Your task to perform on an android device: Open Yahoo.com Image 0: 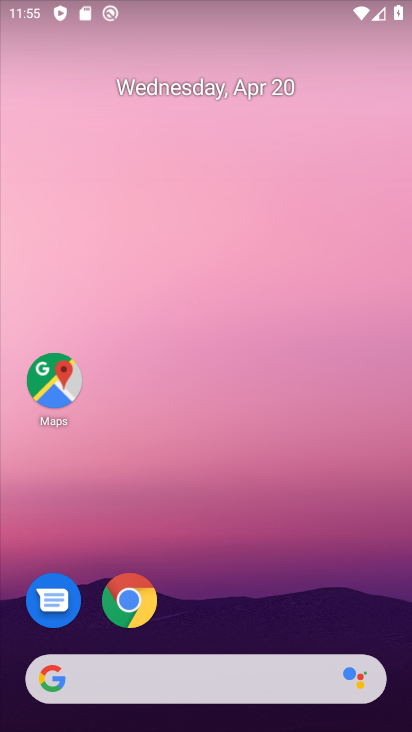
Step 0: click (199, 687)
Your task to perform on an android device: Open Yahoo.com Image 1: 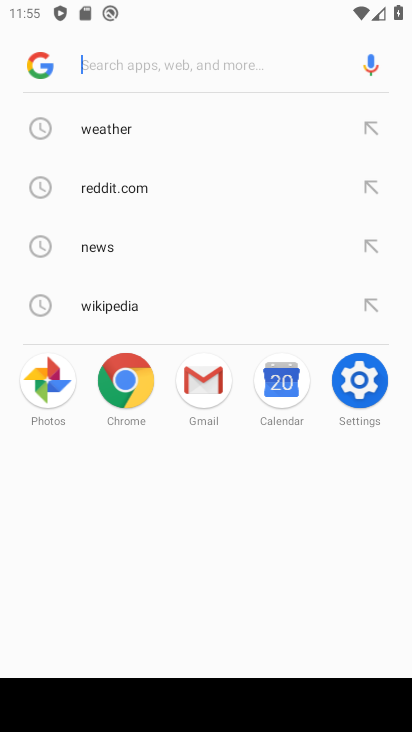
Step 1: type "yahoo.com"
Your task to perform on an android device: Open Yahoo.com Image 2: 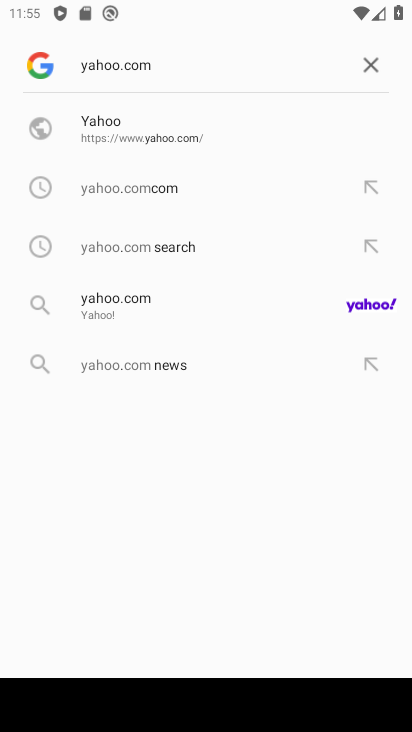
Step 2: click (145, 308)
Your task to perform on an android device: Open Yahoo.com Image 3: 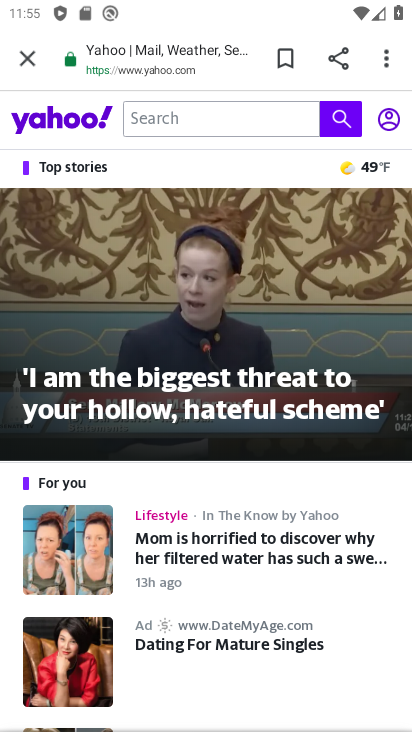
Step 3: task complete